Your task to perform on an android device: turn off translation in the chrome app Image 0: 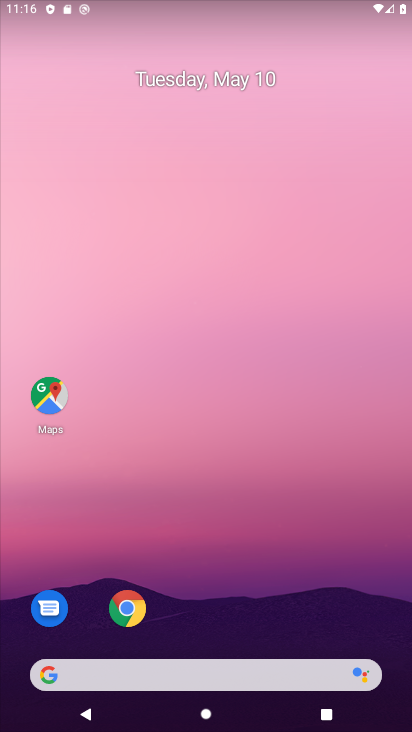
Step 0: click (128, 602)
Your task to perform on an android device: turn off translation in the chrome app Image 1: 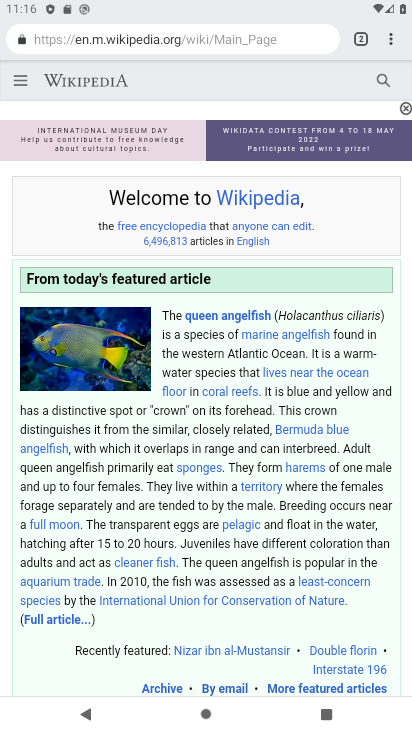
Step 1: click (392, 38)
Your task to perform on an android device: turn off translation in the chrome app Image 2: 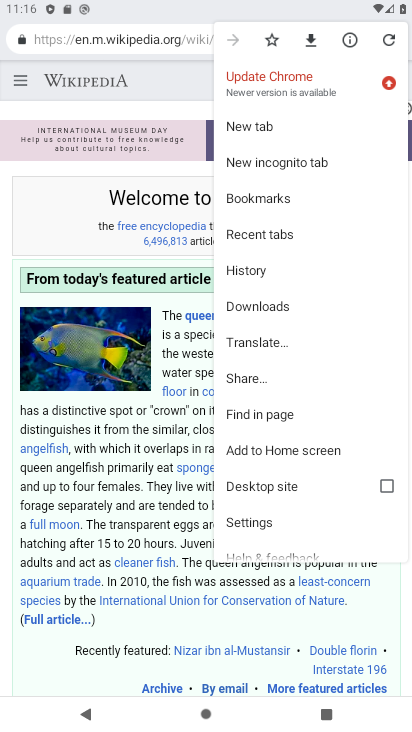
Step 2: click (300, 514)
Your task to perform on an android device: turn off translation in the chrome app Image 3: 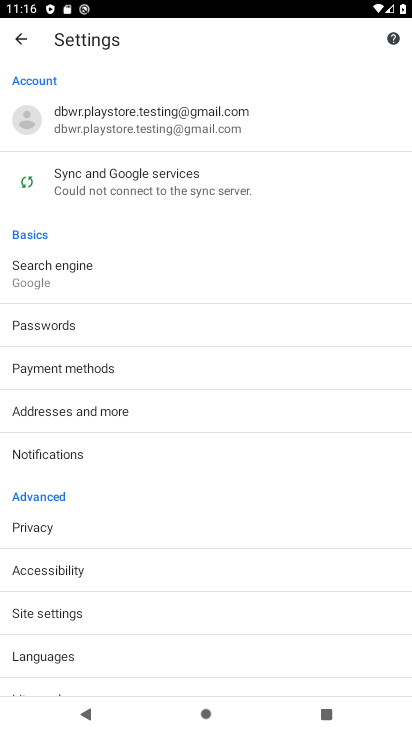
Step 3: click (210, 659)
Your task to perform on an android device: turn off translation in the chrome app Image 4: 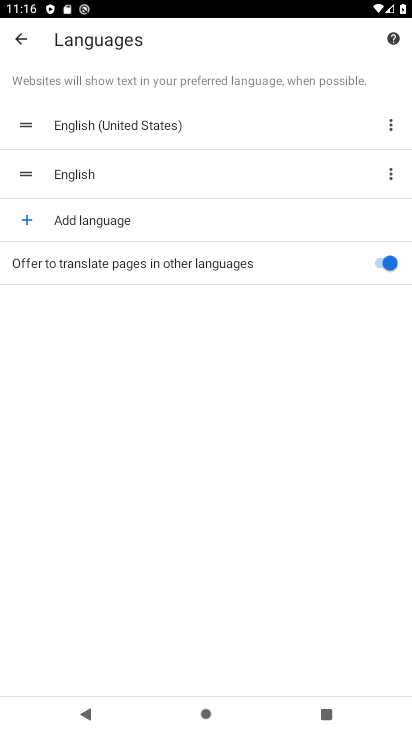
Step 4: click (383, 262)
Your task to perform on an android device: turn off translation in the chrome app Image 5: 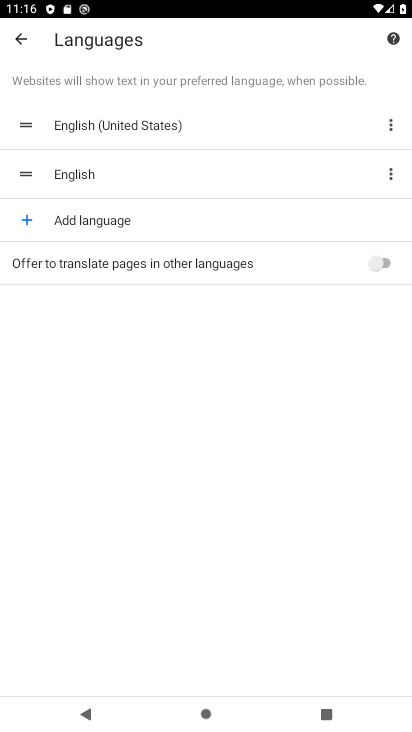
Step 5: task complete